Your task to perform on an android device: manage bookmarks in the chrome app Image 0: 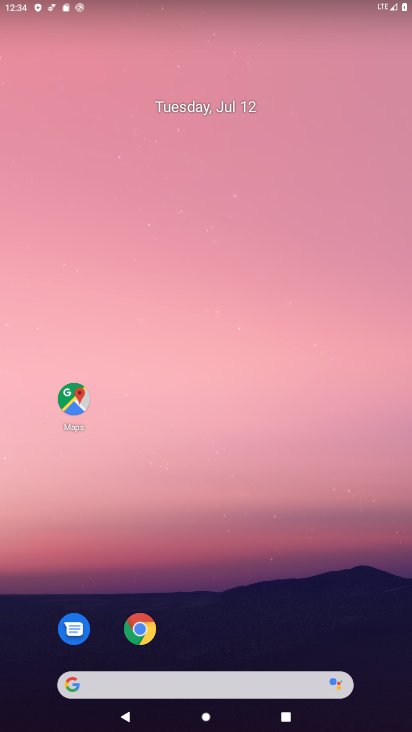
Step 0: drag from (211, 654) to (276, 16)
Your task to perform on an android device: manage bookmarks in the chrome app Image 1: 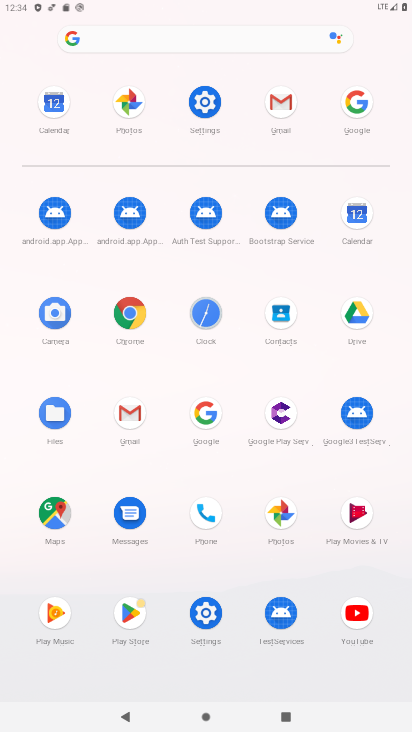
Step 1: click (136, 314)
Your task to perform on an android device: manage bookmarks in the chrome app Image 2: 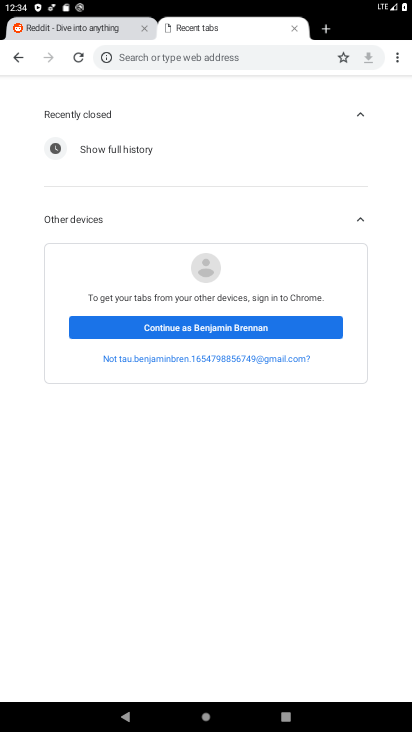
Step 2: task complete